Your task to perform on an android device: What is the recent news? Image 0: 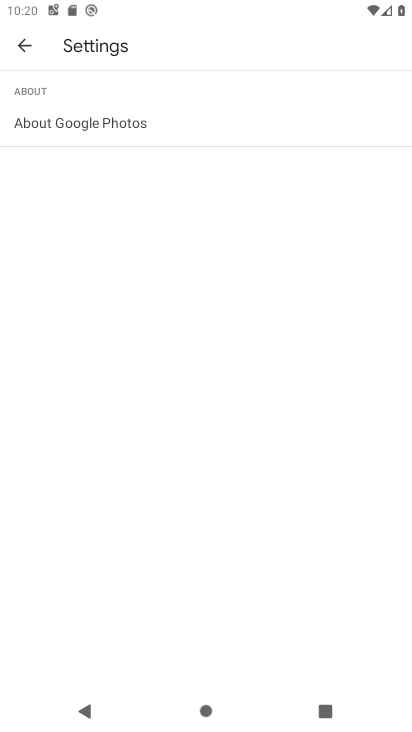
Step 0: press home button
Your task to perform on an android device: What is the recent news? Image 1: 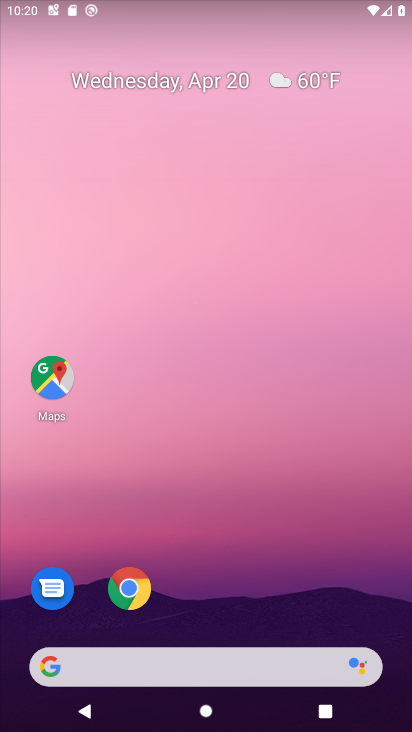
Step 1: task complete